Your task to perform on an android device: Open Youtube and go to "Your channel" Image 0: 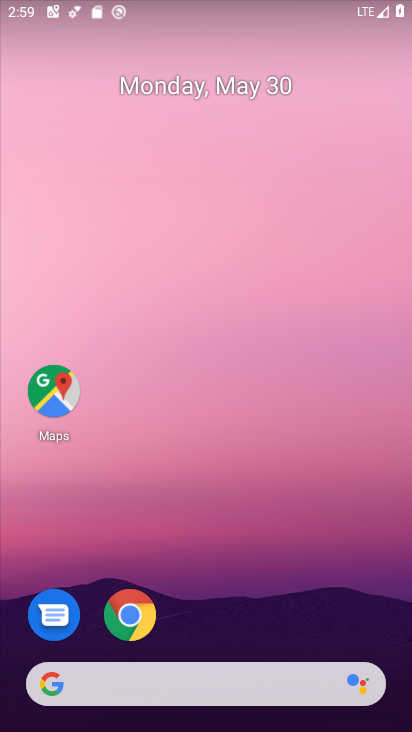
Step 0: drag from (236, 573) to (278, 12)
Your task to perform on an android device: Open Youtube and go to "Your channel" Image 1: 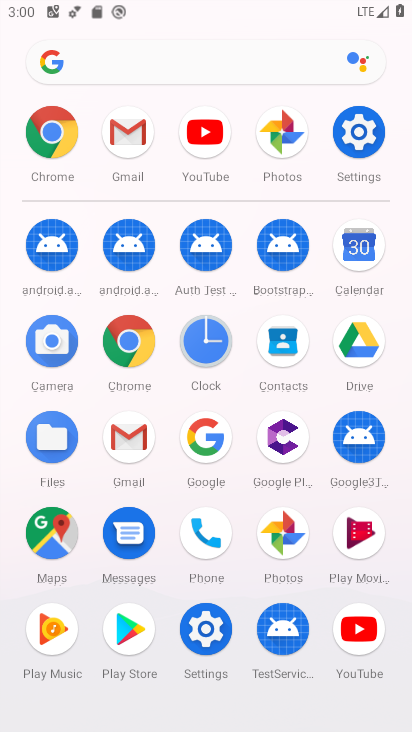
Step 1: click (353, 626)
Your task to perform on an android device: Open Youtube and go to "Your channel" Image 2: 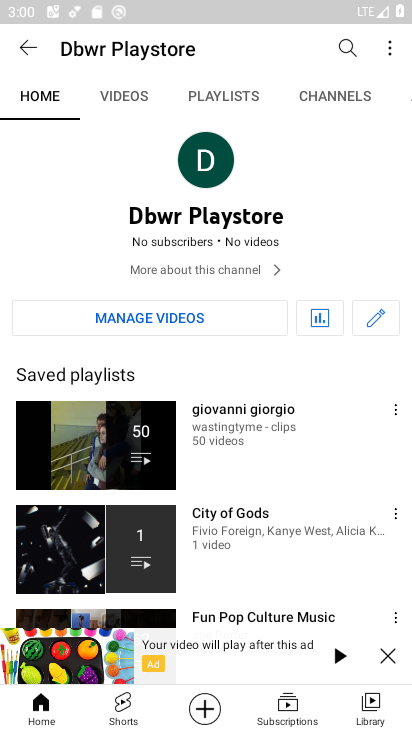
Step 2: task complete